Your task to perform on an android device: search for starred emails in the gmail app Image 0: 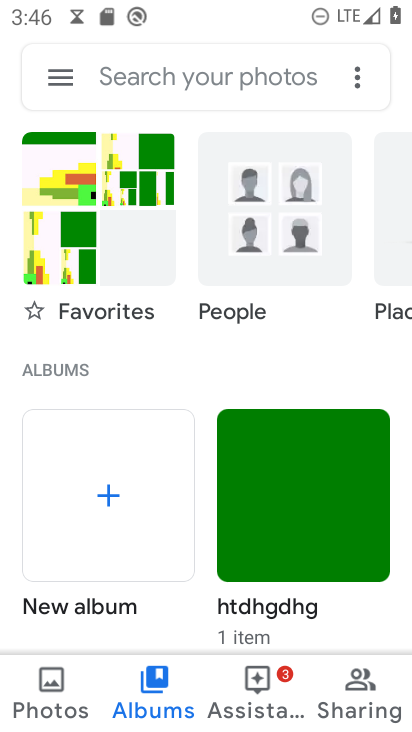
Step 0: press home button
Your task to perform on an android device: search for starred emails in the gmail app Image 1: 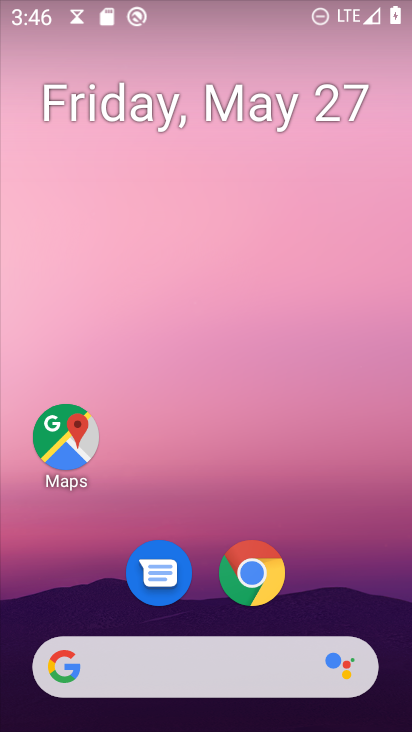
Step 1: drag from (323, 581) to (327, 112)
Your task to perform on an android device: search for starred emails in the gmail app Image 2: 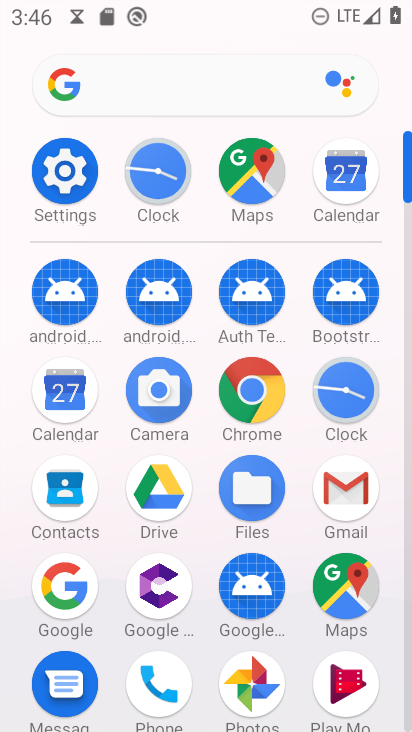
Step 2: click (345, 484)
Your task to perform on an android device: search for starred emails in the gmail app Image 3: 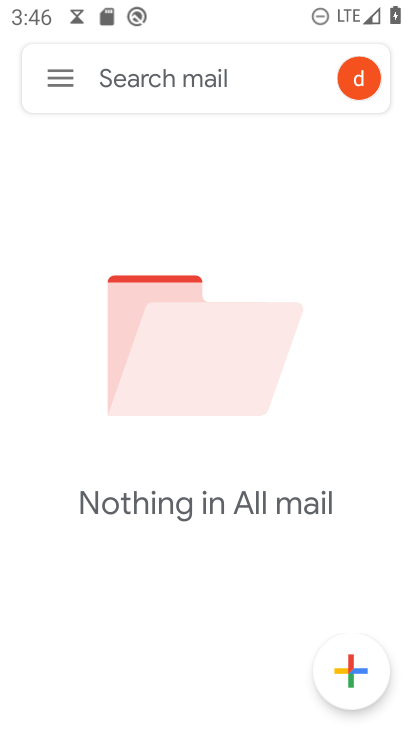
Step 3: click (62, 75)
Your task to perform on an android device: search for starred emails in the gmail app Image 4: 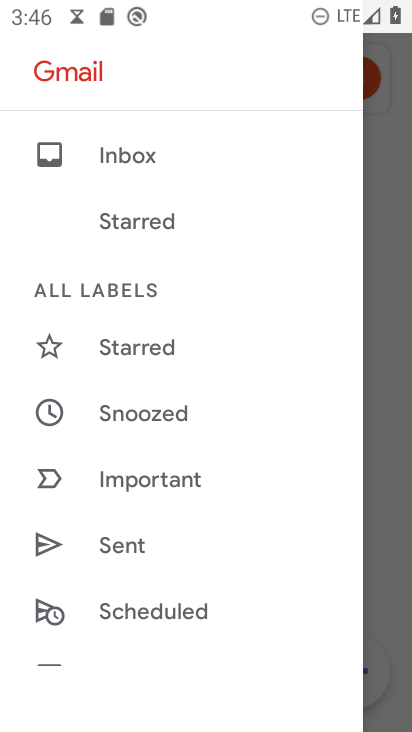
Step 4: click (146, 354)
Your task to perform on an android device: search for starred emails in the gmail app Image 5: 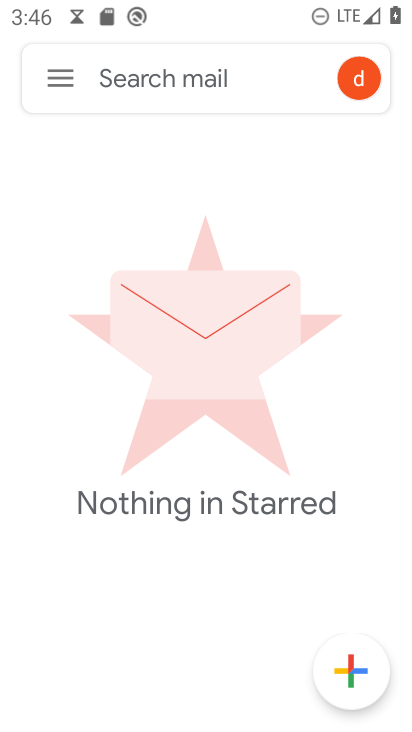
Step 5: task complete